Your task to perform on an android device: Open Google Maps and go to "Timeline" Image 0: 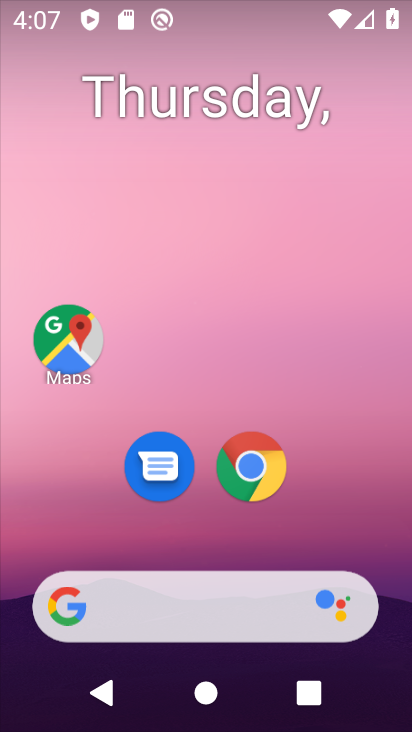
Step 0: drag from (369, 509) to (408, 531)
Your task to perform on an android device: Open Google Maps and go to "Timeline" Image 1: 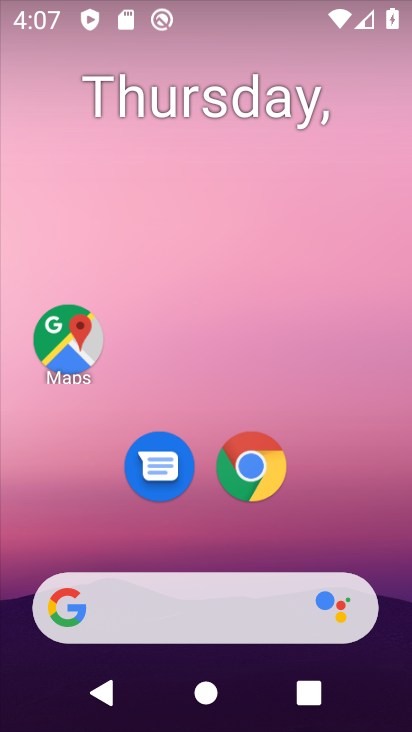
Step 1: drag from (369, 502) to (352, 111)
Your task to perform on an android device: Open Google Maps and go to "Timeline" Image 2: 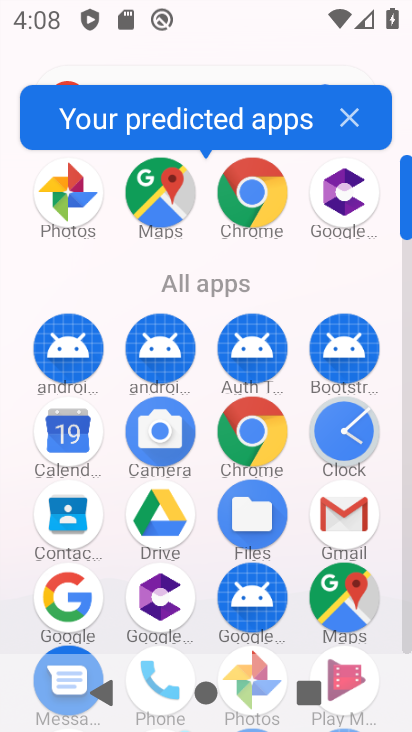
Step 2: click (176, 215)
Your task to perform on an android device: Open Google Maps and go to "Timeline" Image 3: 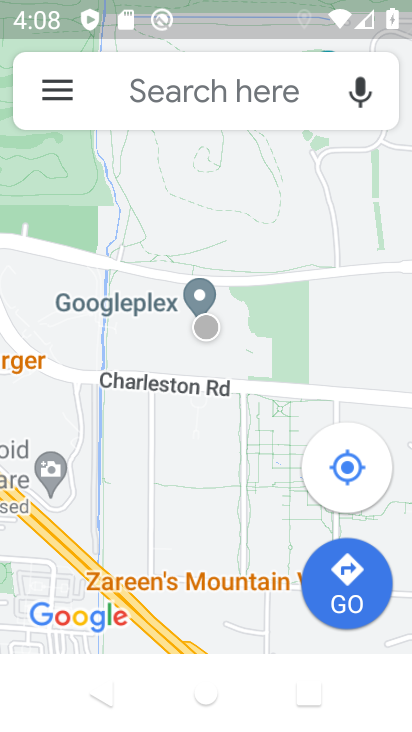
Step 3: click (77, 100)
Your task to perform on an android device: Open Google Maps and go to "Timeline" Image 4: 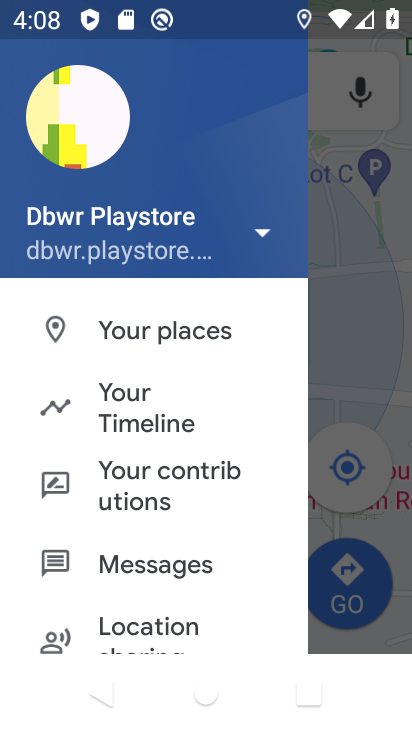
Step 4: click (174, 397)
Your task to perform on an android device: Open Google Maps and go to "Timeline" Image 5: 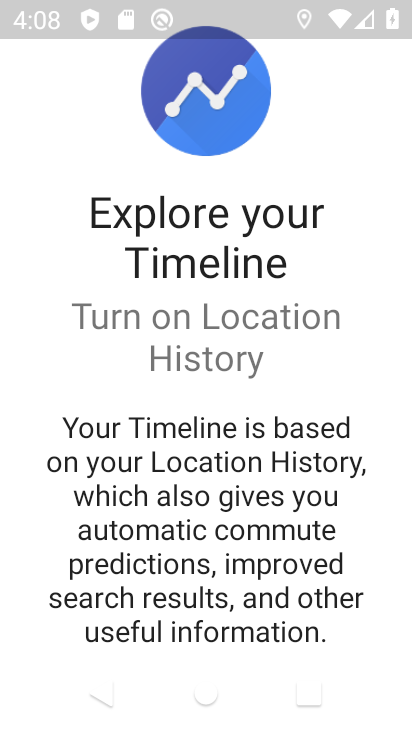
Step 5: task complete